Your task to perform on an android device: Open the calendar and show me this week's events? Image 0: 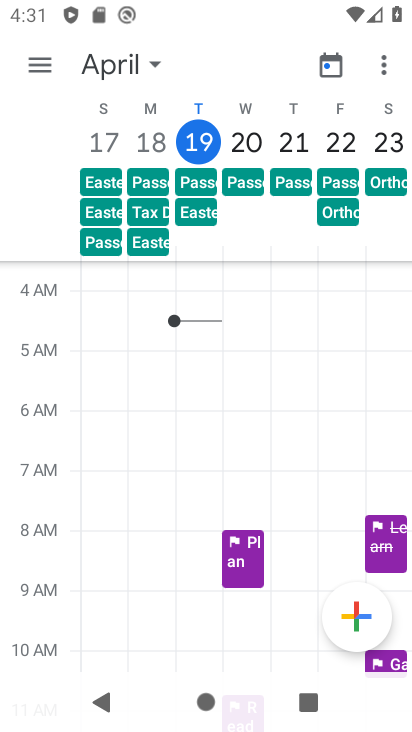
Step 0: press home button
Your task to perform on an android device: Open the calendar and show me this week's events? Image 1: 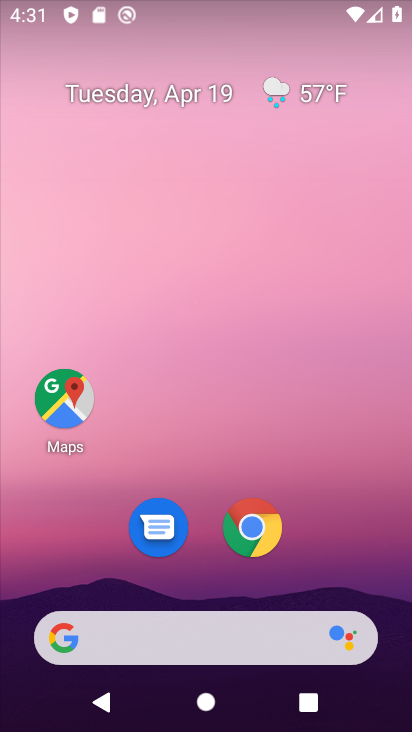
Step 1: drag from (373, 559) to (304, 95)
Your task to perform on an android device: Open the calendar and show me this week's events? Image 2: 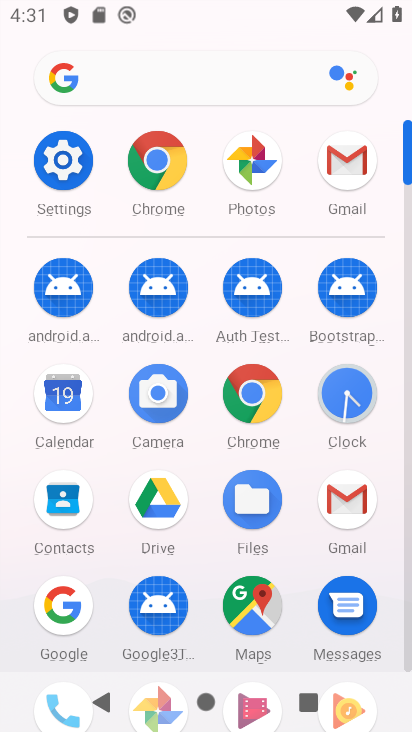
Step 2: click (407, 654)
Your task to perform on an android device: Open the calendar and show me this week's events? Image 3: 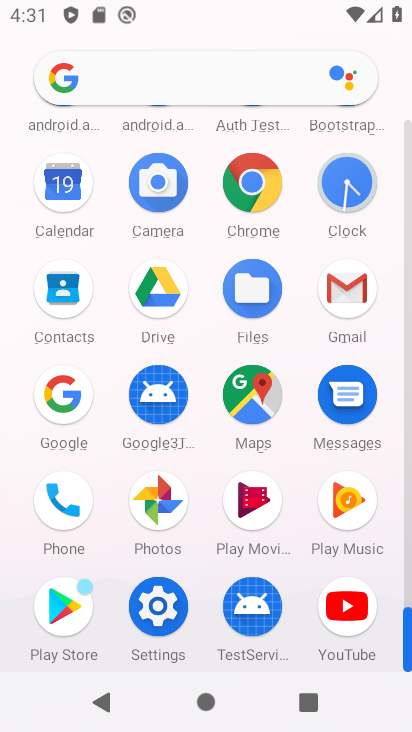
Step 3: click (56, 183)
Your task to perform on an android device: Open the calendar and show me this week's events? Image 4: 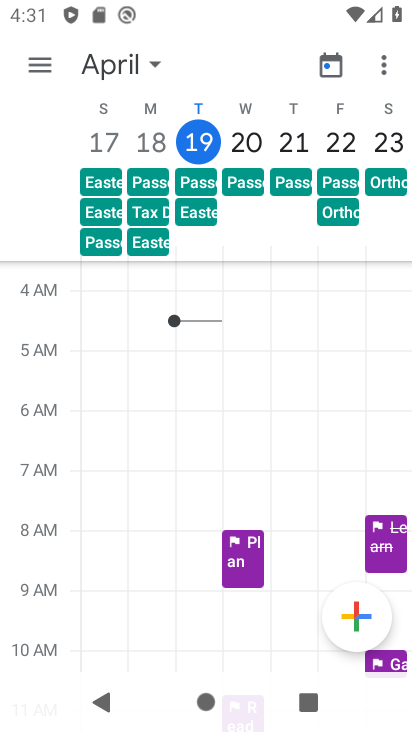
Step 4: click (147, 59)
Your task to perform on an android device: Open the calendar and show me this week's events? Image 5: 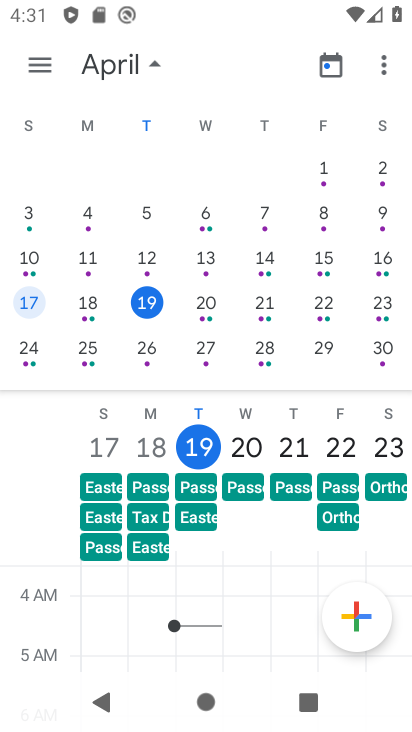
Step 5: click (35, 356)
Your task to perform on an android device: Open the calendar and show me this week's events? Image 6: 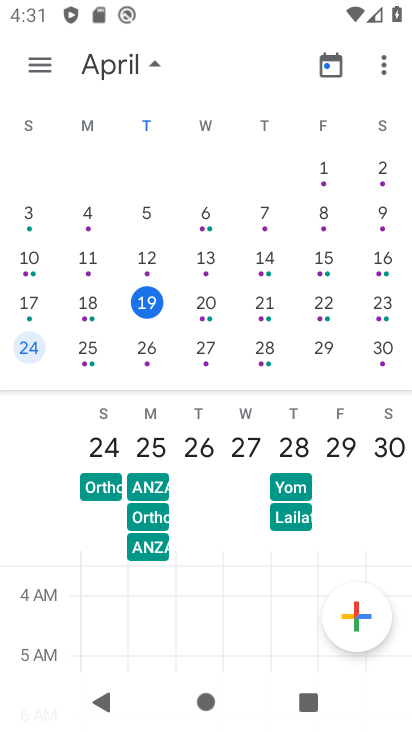
Step 6: task complete